Your task to perform on an android device: turn on translation in the chrome app Image 0: 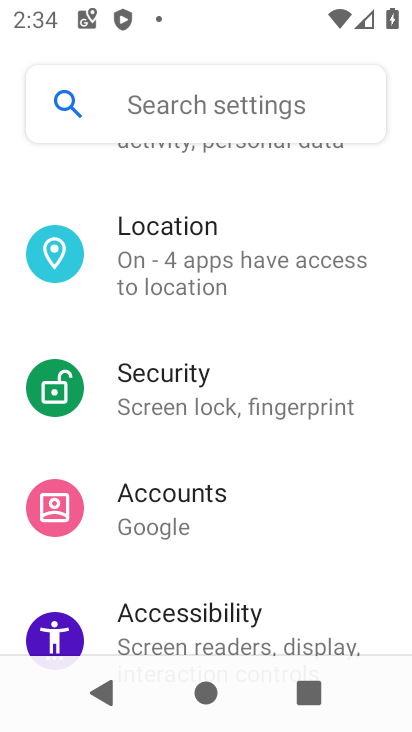
Step 0: press home button
Your task to perform on an android device: turn on translation in the chrome app Image 1: 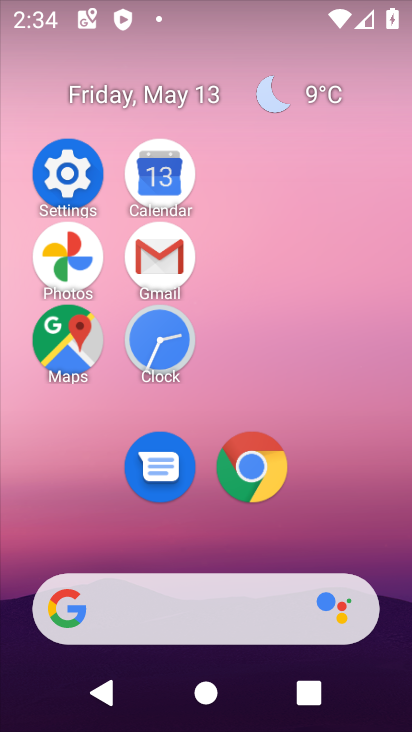
Step 1: click (257, 470)
Your task to perform on an android device: turn on translation in the chrome app Image 2: 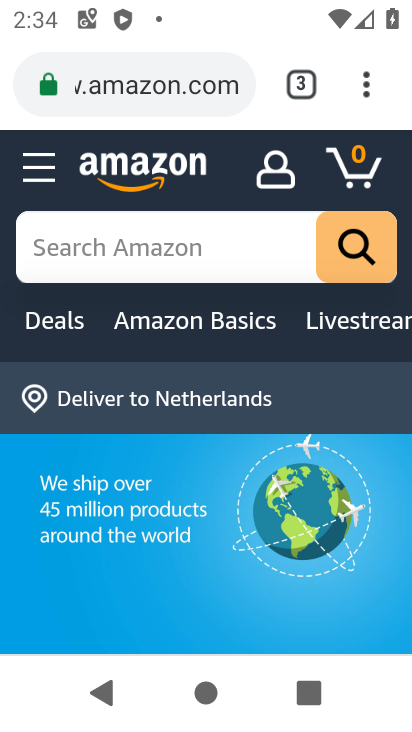
Step 2: click (359, 84)
Your task to perform on an android device: turn on translation in the chrome app Image 3: 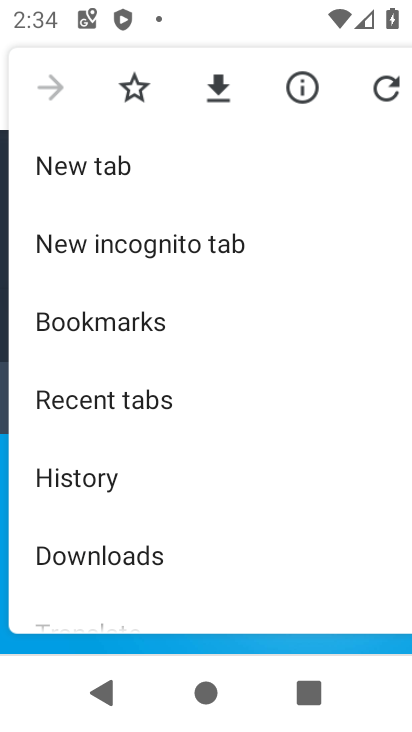
Step 3: drag from (176, 479) to (231, 166)
Your task to perform on an android device: turn on translation in the chrome app Image 4: 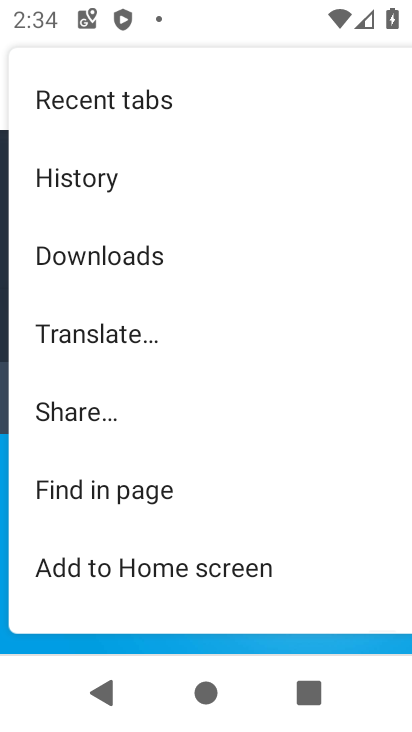
Step 4: drag from (166, 458) to (218, 211)
Your task to perform on an android device: turn on translation in the chrome app Image 5: 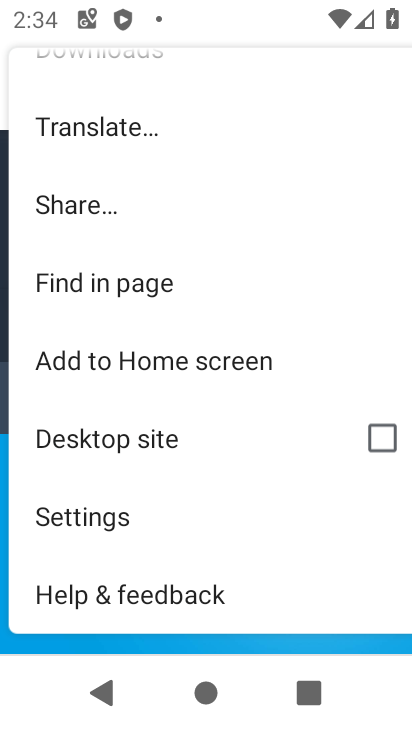
Step 5: click (148, 523)
Your task to perform on an android device: turn on translation in the chrome app Image 6: 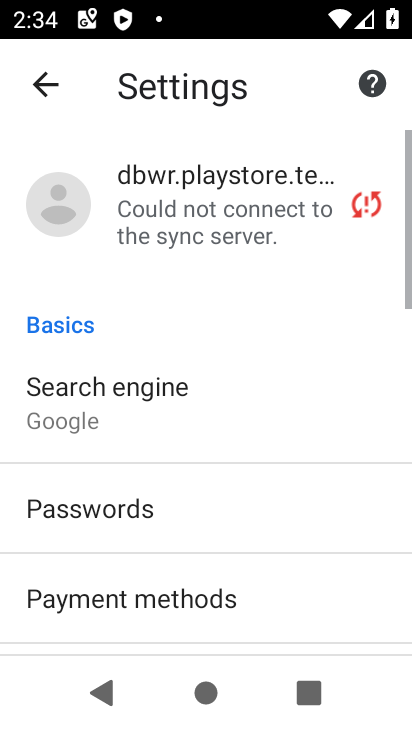
Step 6: drag from (145, 512) to (172, 189)
Your task to perform on an android device: turn on translation in the chrome app Image 7: 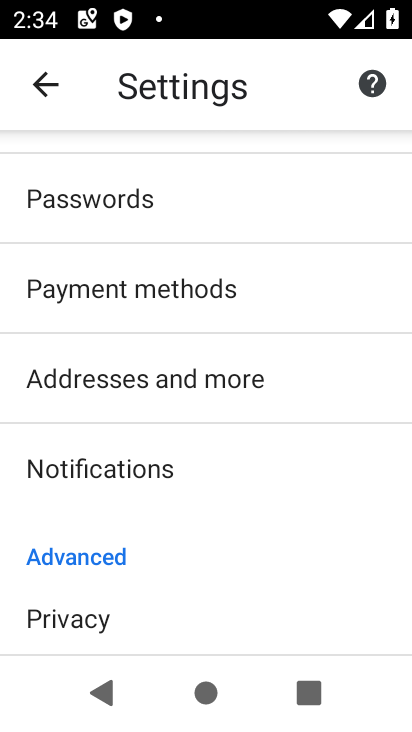
Step 7: drag from (110, 494) to (156, 210)
Your task to perform on an android device: turn on translation in the chrome app Image 8: 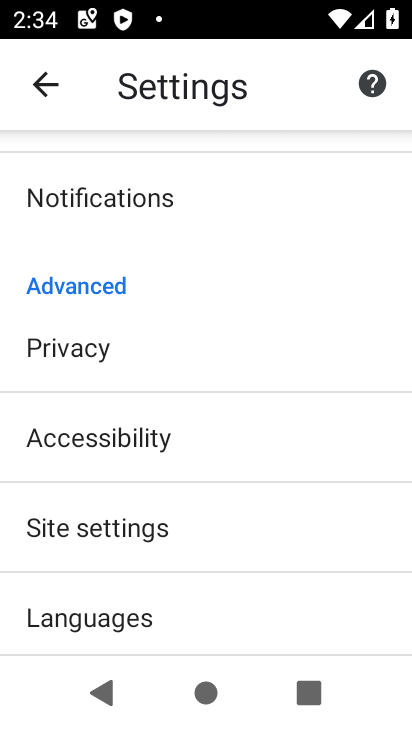
Step 8: click (93, 596)
Your task to perform on an android device: turn on translation in the chrome app Image 9: 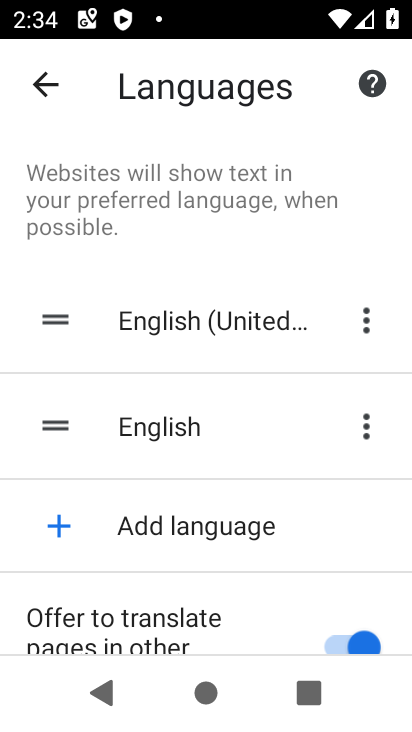
Step 9: task complete